Your task to perform on an android device: Go to location settings Image 0: 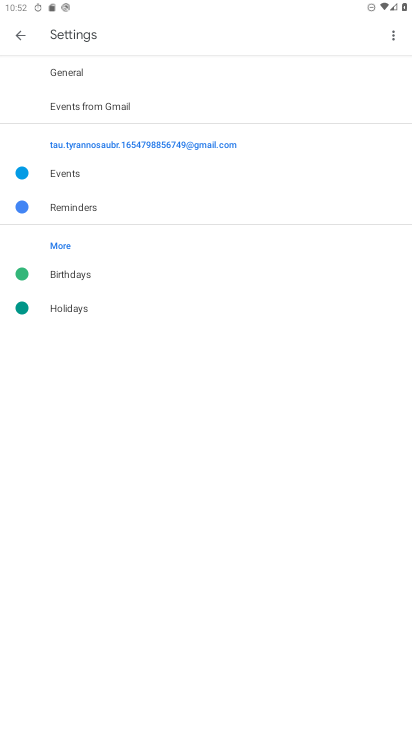
Step 0: press home button
Your task to perform on an android device: Go to location settings Image 1: 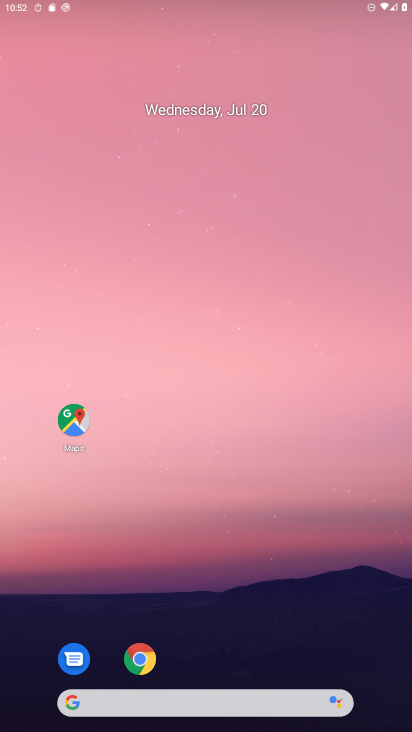
Step 1: drag from (318, 641) to (189, 137)
Your task to perform on an android device: Go to location settings Image 2: 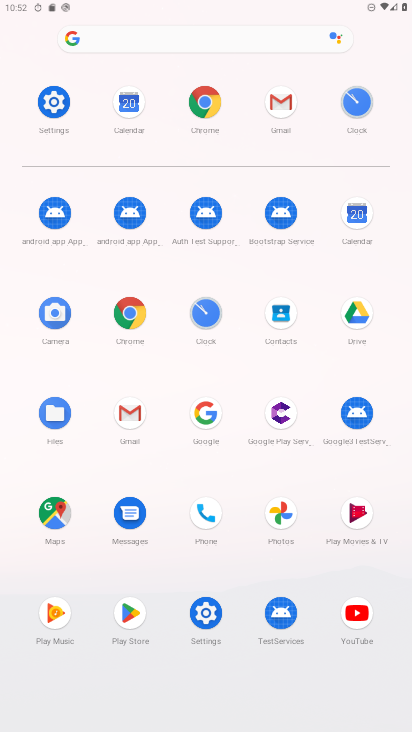
Step 2: click (51, 106)
Your task to perform on an android device: Go to location settings Image 3: 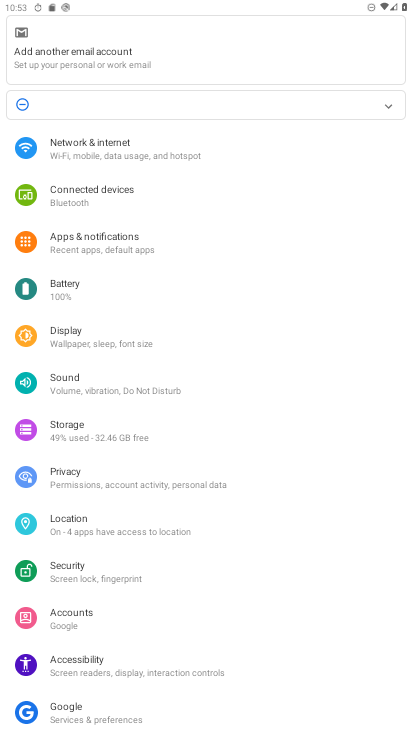
Step 3: click (75, 521)
Your task to perform on an android device: Go to location settings Image 4: 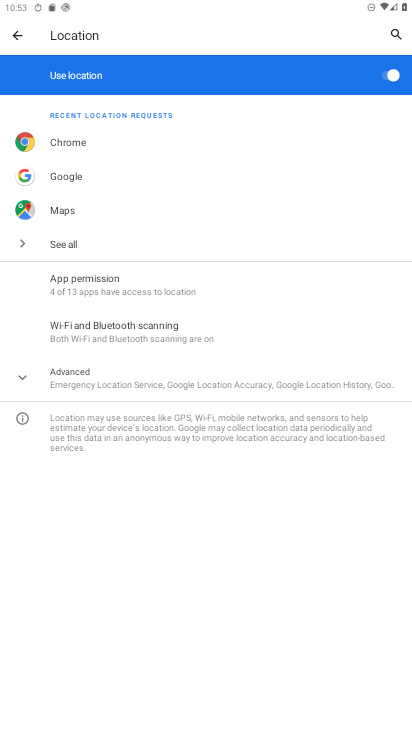
Step 4: task complete